Your task to perform on an android device: Go to Yahoo.com Image 0: 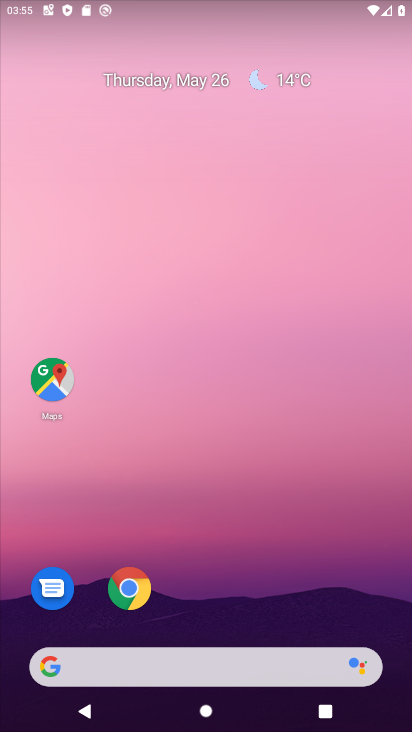
Step 0: drag from (255, 601) to (274, 168)
Your task to perform on an android device: Go to Yahoo.com Image 1: 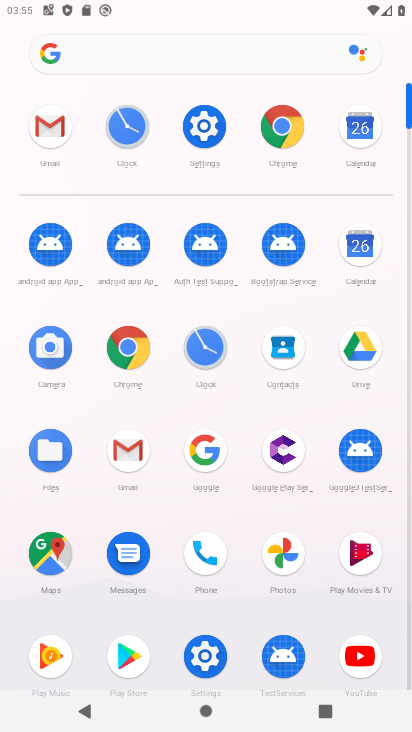
Step 1: click (202, 46)
Your task to perform on an android device: Go to Yahoo.com Image 2: 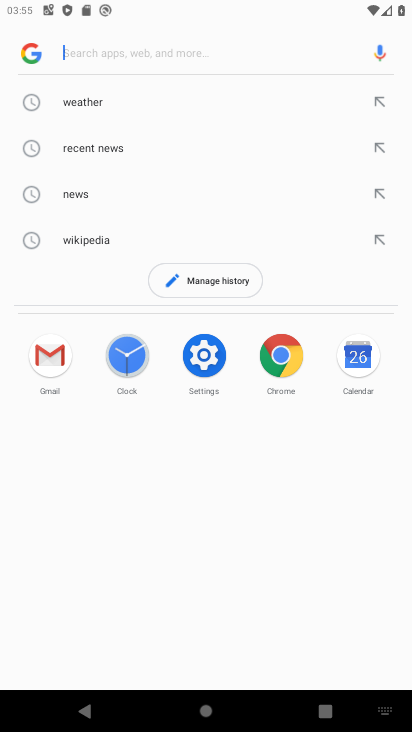
Step 2: type "yahoo.com"
Your task to perform on an android device: Go to Yahoo.com Image 3: 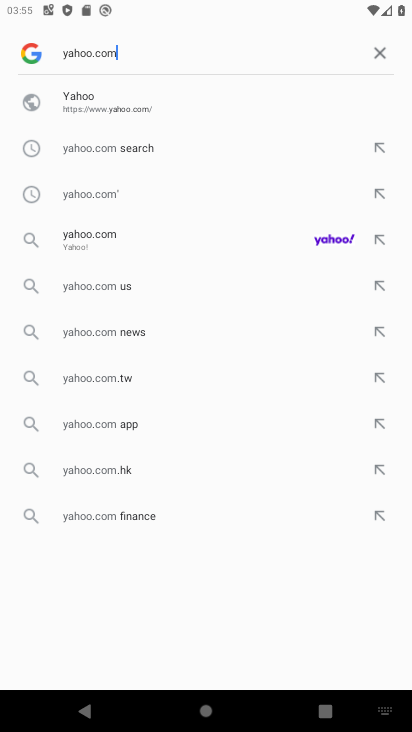
Step 3: click (160, 111)
Your task to perform on an android device: Go to Yahoo.com Image 4: 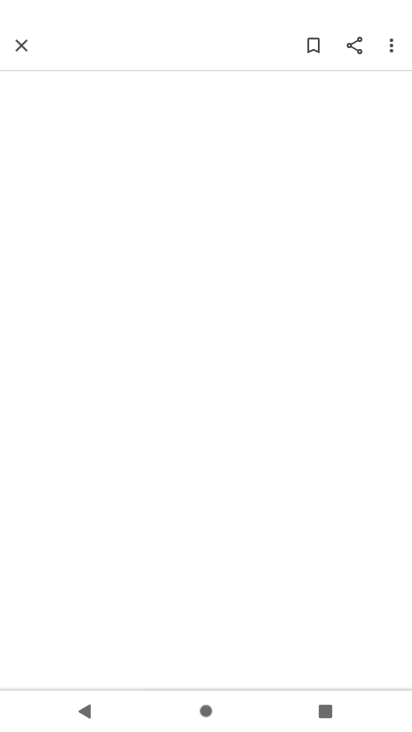
Step 4: task complete